Your task to perform on an android device: Open accessibility settings Image 0: 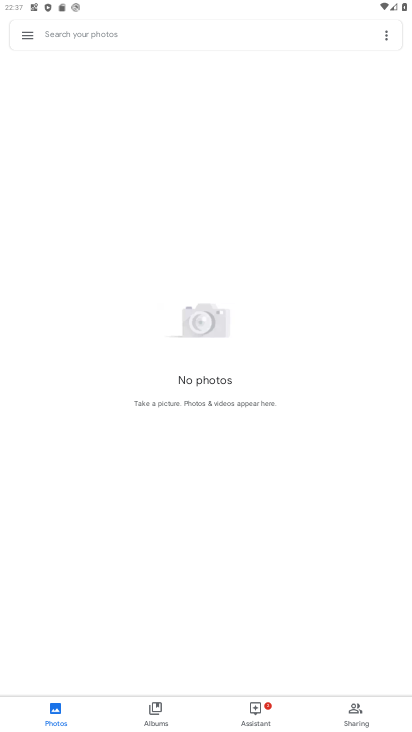
Step 0: press home button
Your task to perform on an android device: Open accessibility settings Image 1: 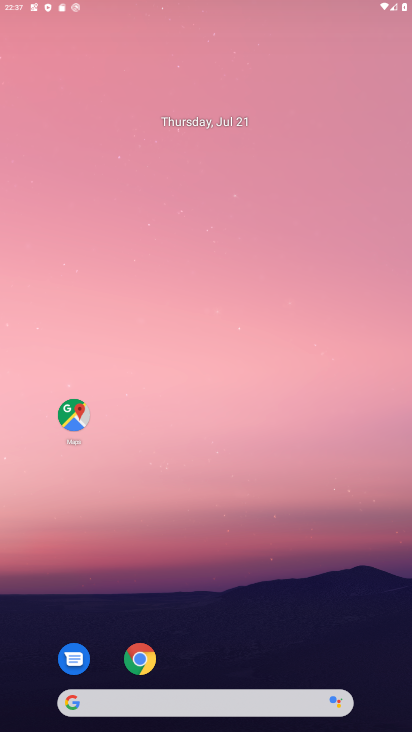
Step 1: drag from (327, 603) to (300, 21)
Your task to perform on an android device: Open accessibility settings Image 2: 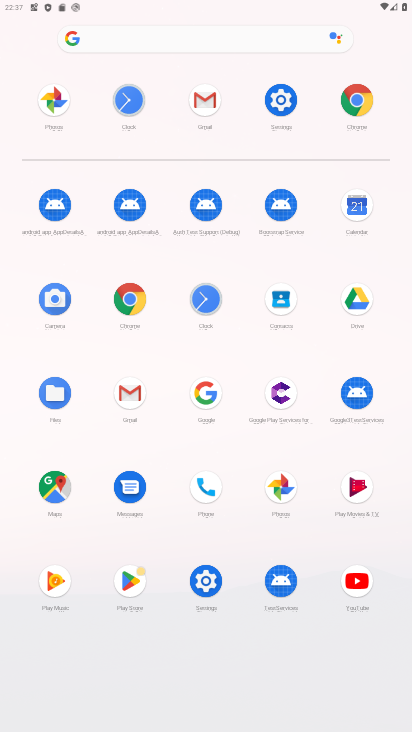
Step 2: click (285, 98)
Your task to perform on an android device: Open accessibility settings Image 3: 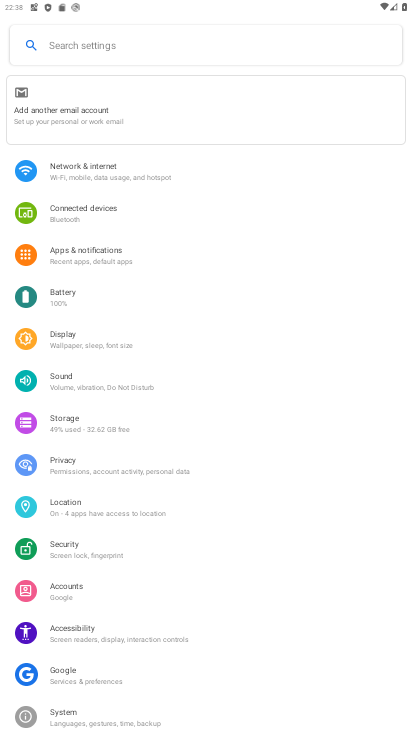
Step 3: click (136, 634)
Your task to perform on an android device: Open accessibility settings Image 4: 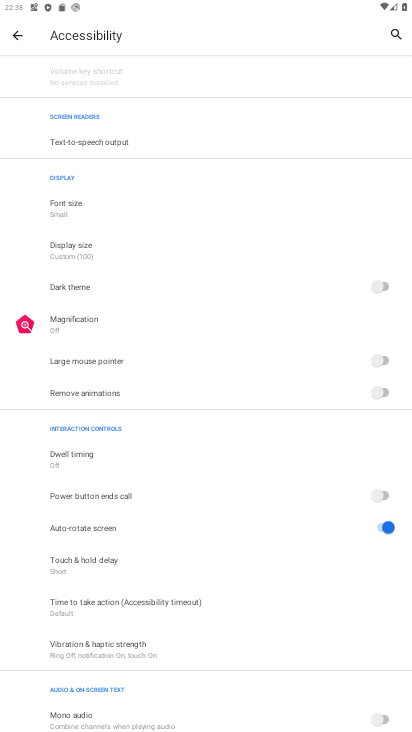
Step 4: task complete